Your task to perform on an android device: turn on showing notifications on the lock screen Image 0: 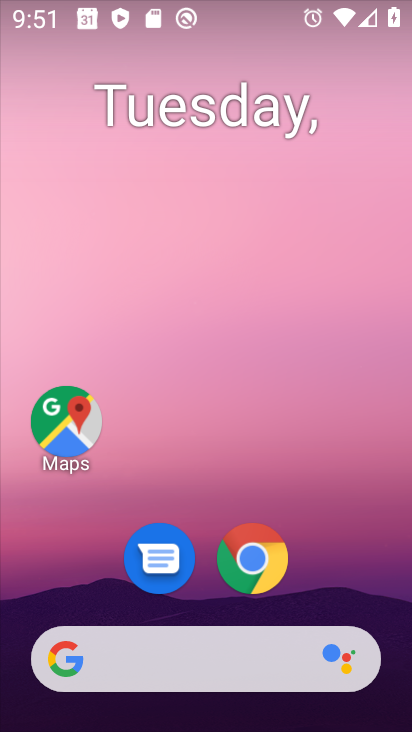
Step 0: drag from (366, 676) to (113, 112)
Your task to perform on an android device: turn on showing notifications on the lock screen Image 1: 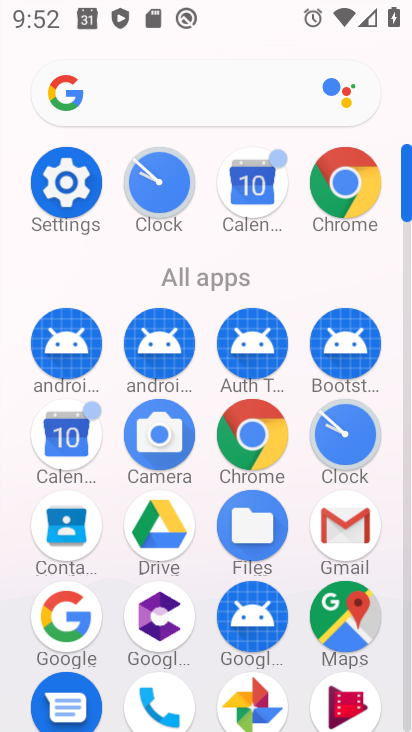
Step 1: click (61, 200)
Your task to perform on an android device: turn on showing notifications on the lock screen Image 2: 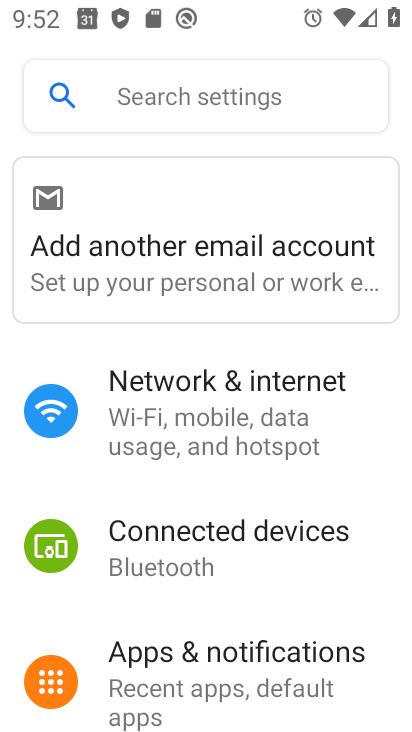
Step 2: click (224, 672)
Your task to perform on an android device: turn on showing notifications on the lock screen Image 3: 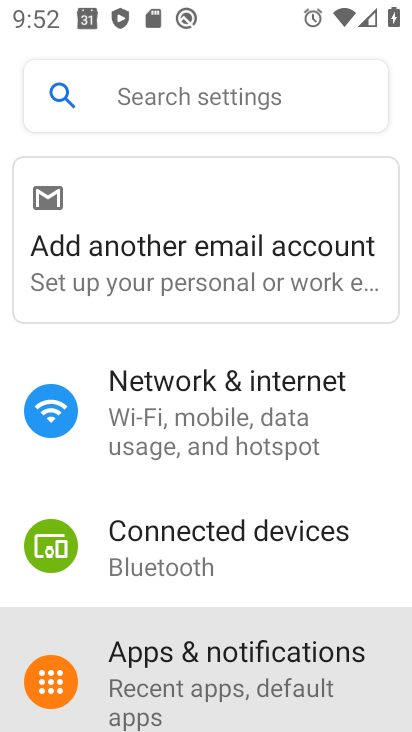
Step 3: click (224, 672)
Your task to perform on an android device: turn on showing notifications on the lock screen Image 4: 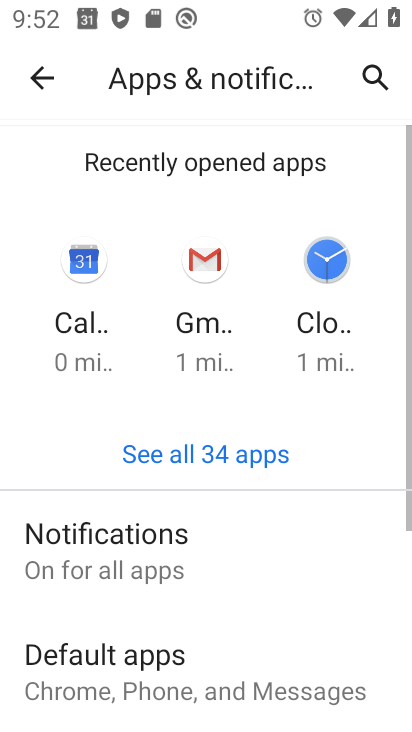
Step 4: click (129, 557)
Your task to perform on an android device: turn on showing notifications on the lock screen Image 5: 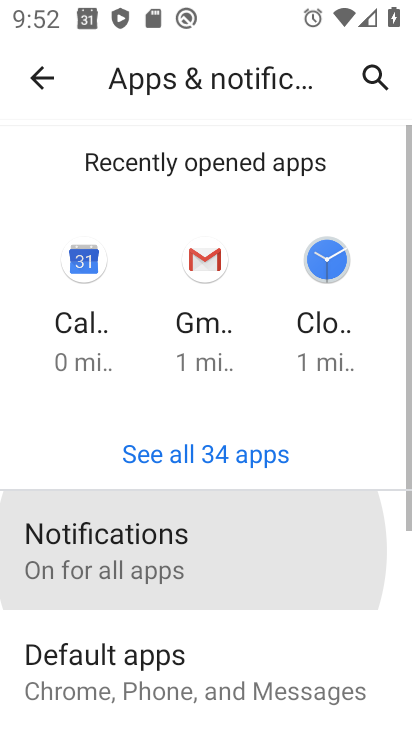
Step 5: click (129, 557)
Your task to perform on an android device: turn on showing notifications on the lock screen Image 6: 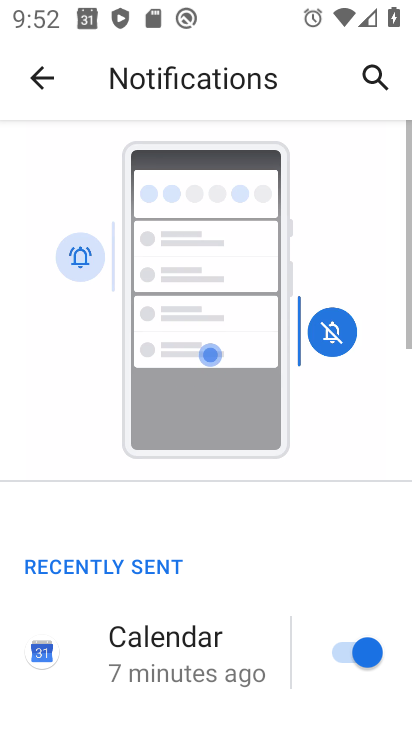
Step 6: drag from (177, 607) to (89, 81)
Your task to perform on an android device: turn on showing notifications on the lock screen Image 7: 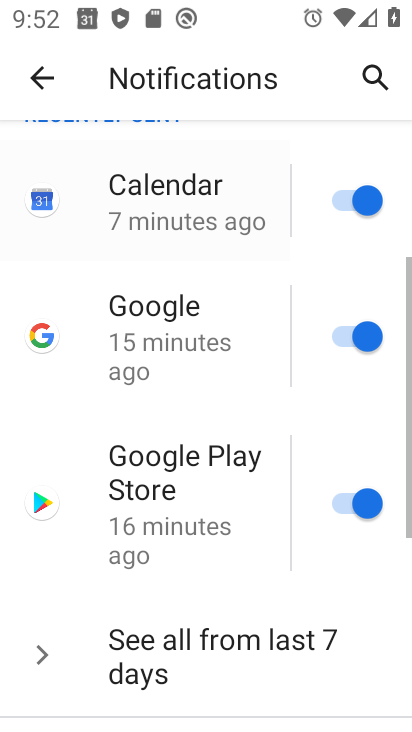
Step 7: drag from (208, 415) to (147, 3)
Your task to perform on an android device: turn on showing notifications on the lock screen Image 8: 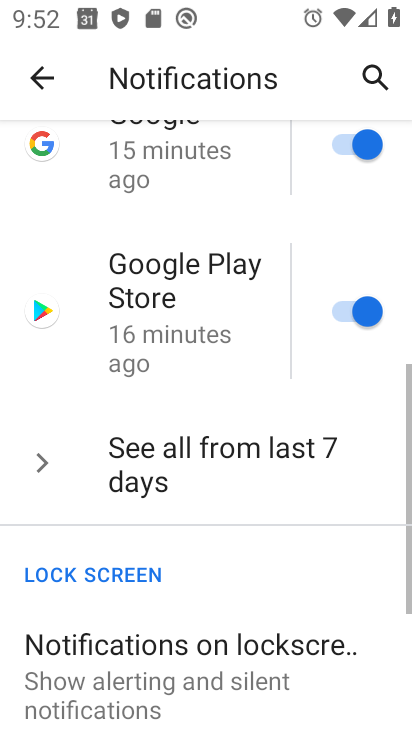
Step 8: drag from (221, 393) to (190, 58)
Your task to perform on an android device: turn on showing notifications on the lock screen Image 9: 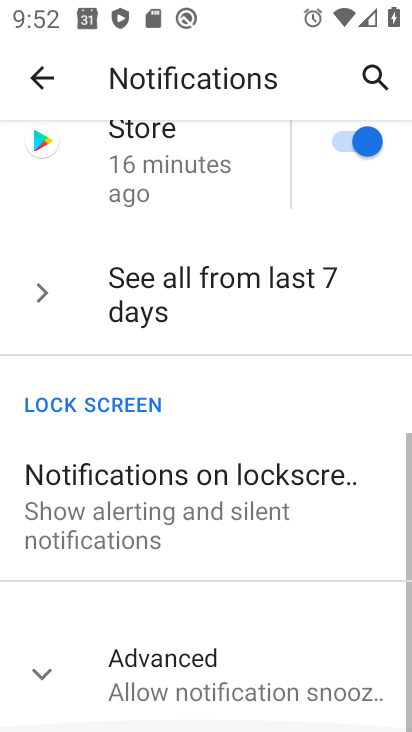
Step 9: drag from (252, 462) to (180, 28)
Your task to perform on an android device: turn on showing notifications on the lock screen Image 10: 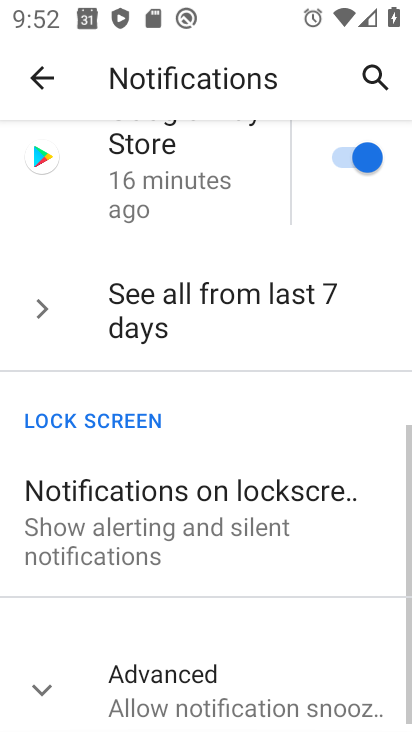
Step 10: click (126, 504)
Your task to perform on an android device: turn on showing notifications on the lock screen Image 11: 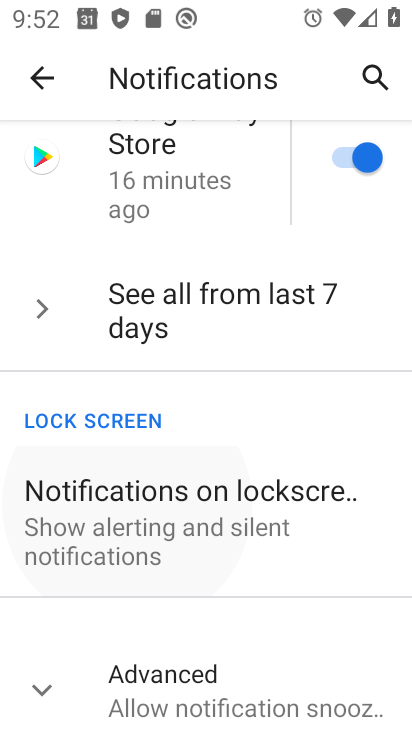
Step 11: click (126, 504)
Your task to perform on an android device: turn on showing notifications on the lock screen Image 12: 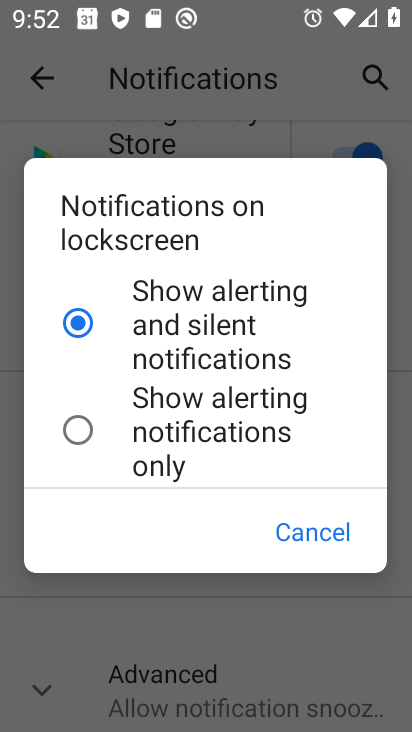
Step 12: task complete